Your task to perform on an android device: turn notification dots off Image 0: 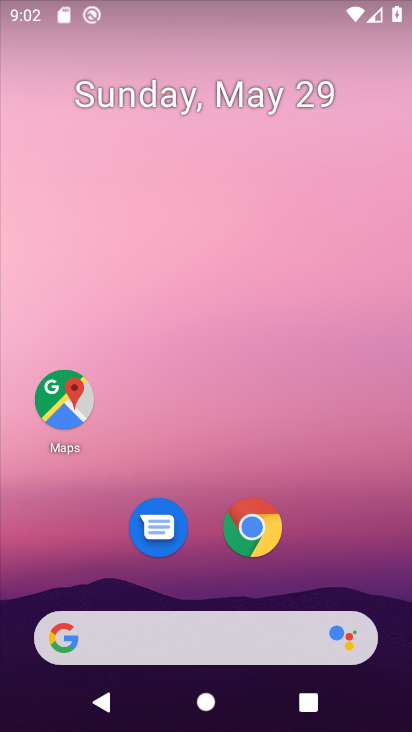
Step 0: drag from (185, 591) to (293, 85)
Your task to perform on an android device: turn notification dots off Image 1: 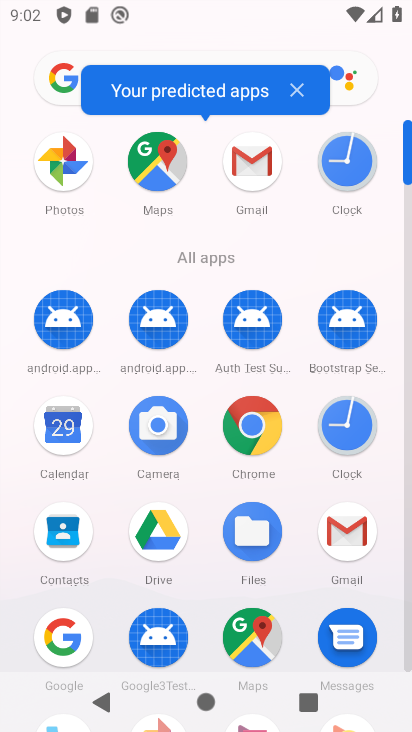
Step 1: drag from (203, 574) to (339, 146)
Your task to perform on an android device: turn notification dots off Image 2: 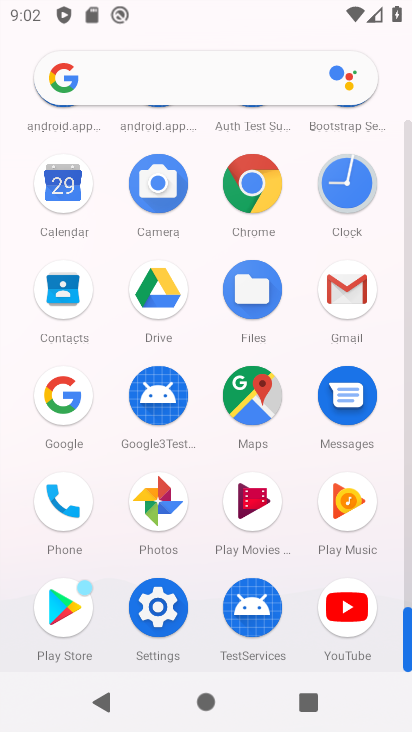
Step 2: click (156, 614)
Your task to perform on an android device: turn notification dots off Image 3: 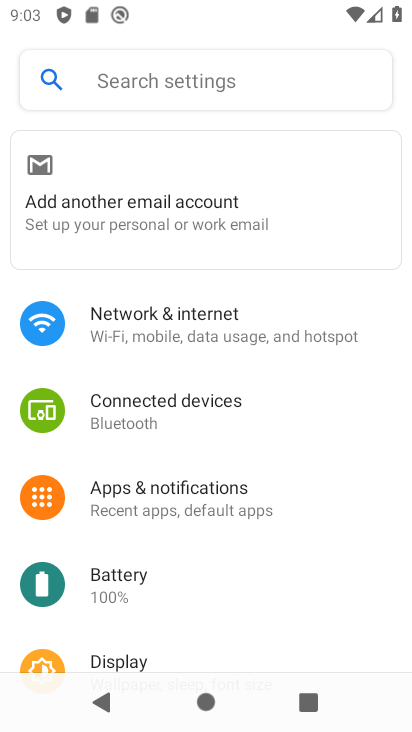
Step 3: click (204, 501)
Your task to perform on an android device: turn notification dots off Image 4: 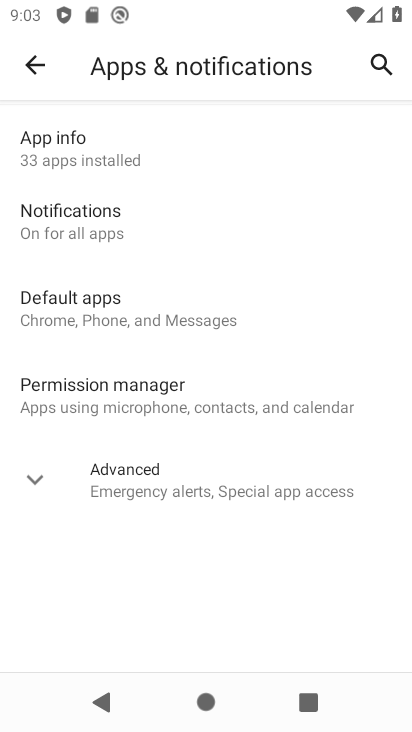
Step 4: click (95, 218)
Your task to perform on an android device: turn notification dots off Image 5: 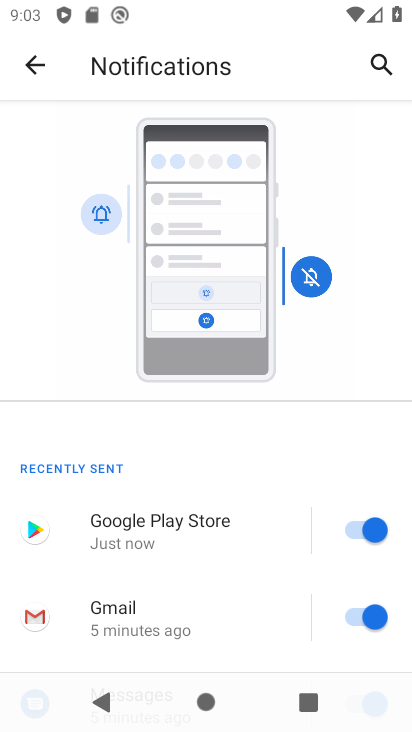
Step 5: drag from (245, 634) to (368, 15)
Your task to perform on an android device: turn notification dots off Image 6: 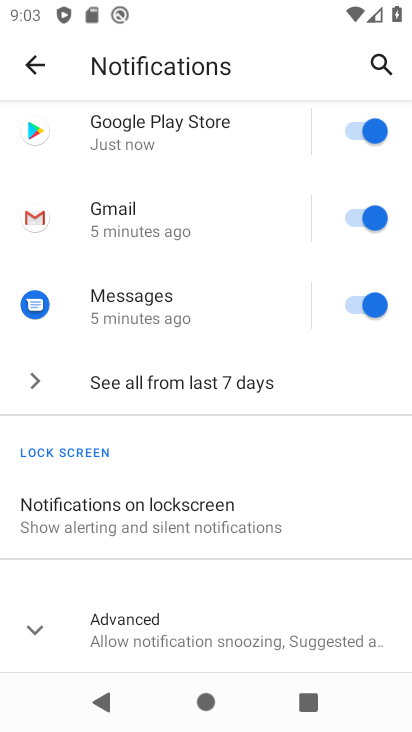
Step 6: click (154, 629)
Your task to perform on an android device: turn notification dots off Image 7: 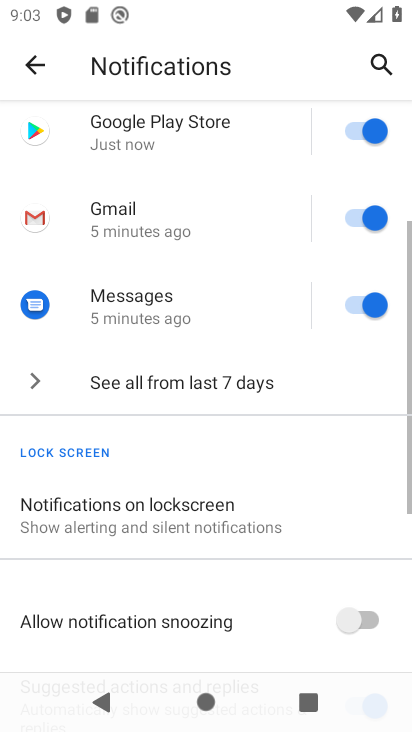
Step 7: drag from (216, 587) to (321, 30)
Your task to perform on an android device: turn notification dots off Image 8: 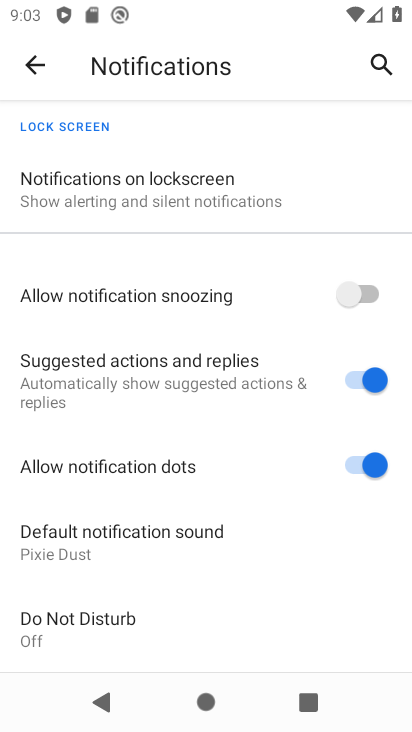
Step 8: click (356, 468)
Your task to perform on an android device: turn notification dots off Image 9: 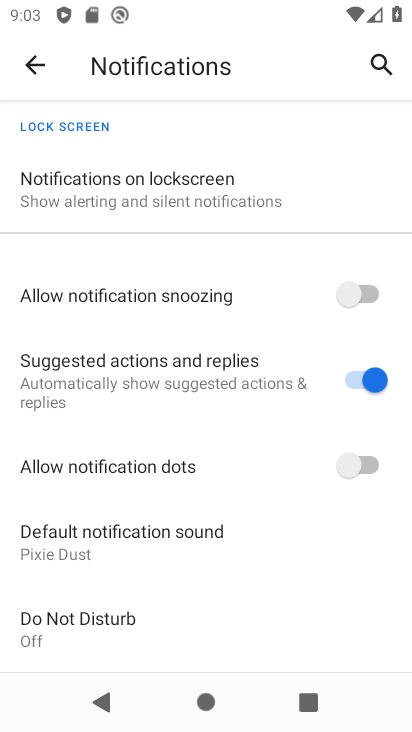
Step 9: task complete